Your task to perform on an android device: Open display settings Image 0: 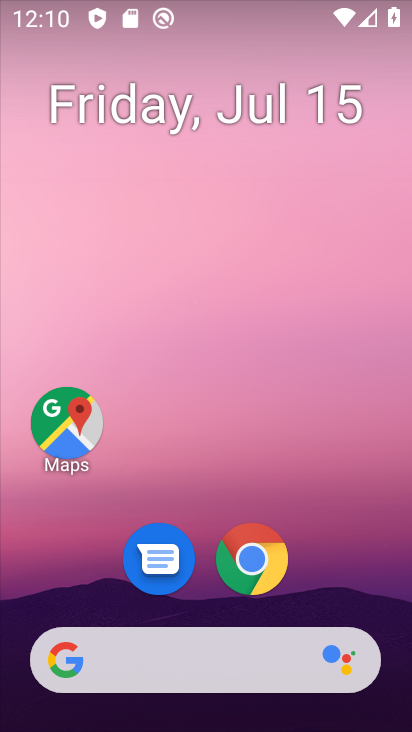
Step 0: drag from (379, 571) to (403, 197)
Your task to perform on an android device: Open display settings Image 1: 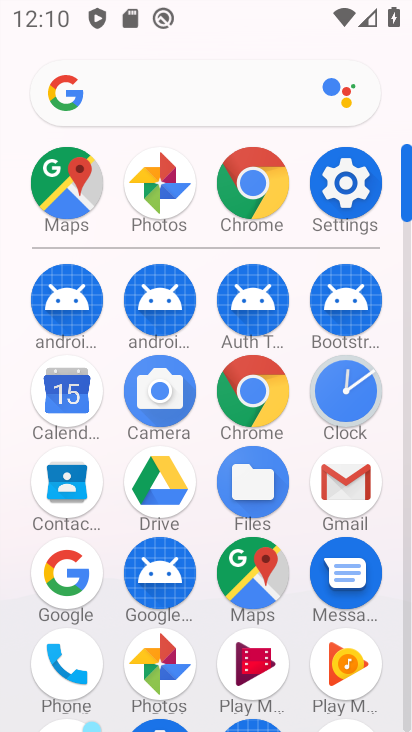
Step 1: click (358, 198)
Your task to perform on an android device: Open display settings Image 2: 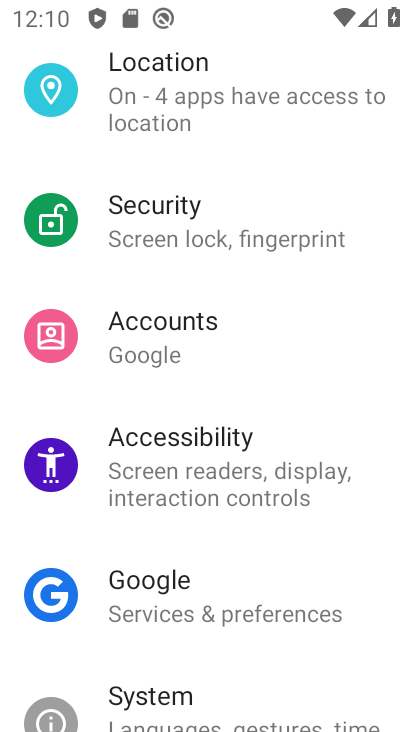
Step 2: drag from (340, 322) to (341, 413)
Your task to perform on an android device: Open display settings Image 3: 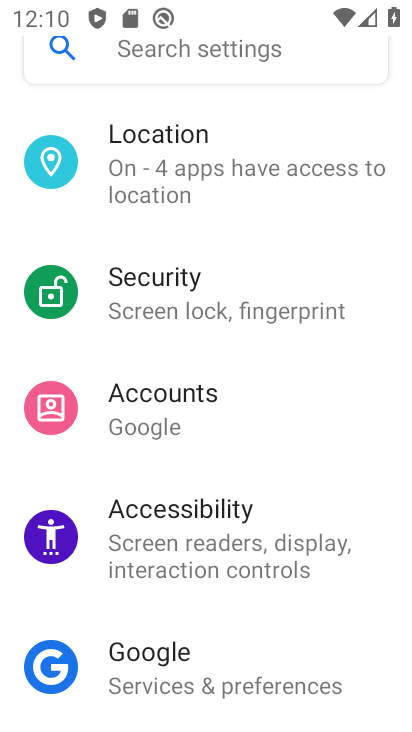
Step 3: drag from (369, 257) to (361, 376)
Your task to perform on an android device: Open display settings Image 4: 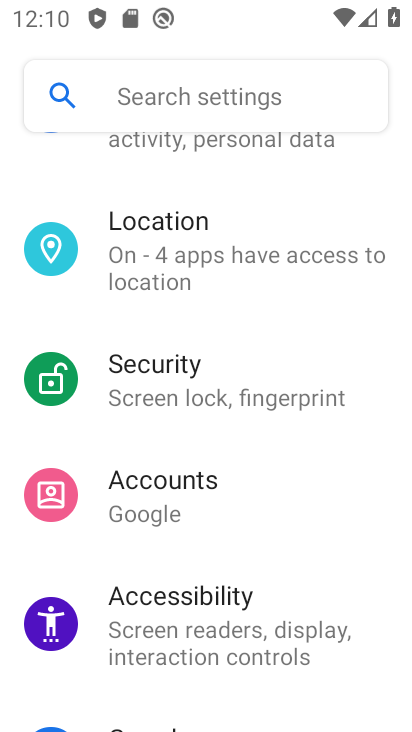
Step 4: drag from (368, 217) to (355, 366)
Your task to perform on an android device: Open display settings Image 5: 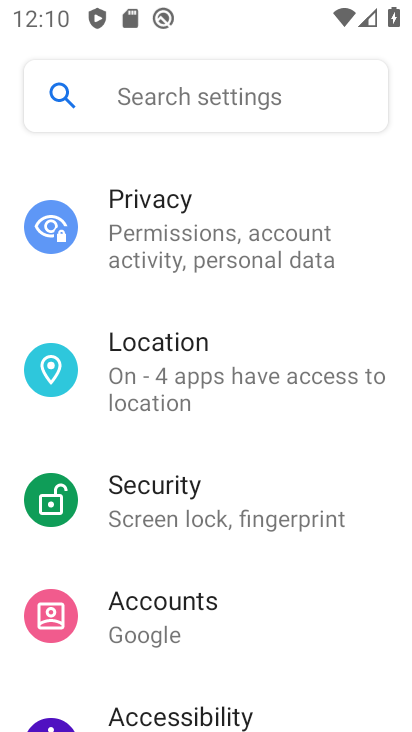
Step 5: drag from (367, 276) to (365, 373)
Your task to perform on an android device: Open display settings Image 6: 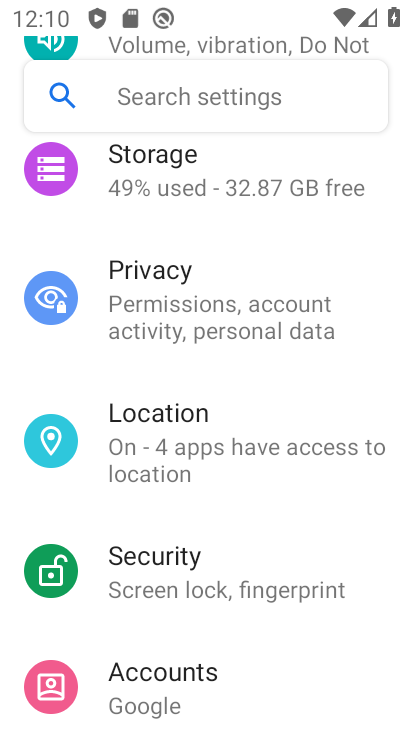
Step 6: drag from (364, 294) to (354, 397)
Your task to perform on an android device: Open display settings Image 7: 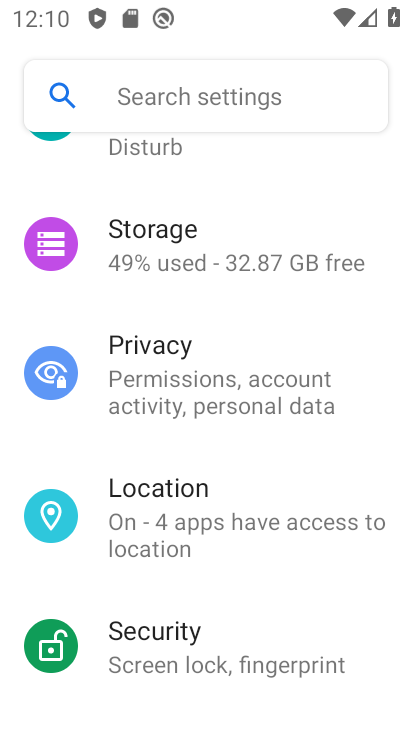
Step 7: drag from (382, 247) to (377, 404)
Your task to perform on an android device: Open display settings Image 8: 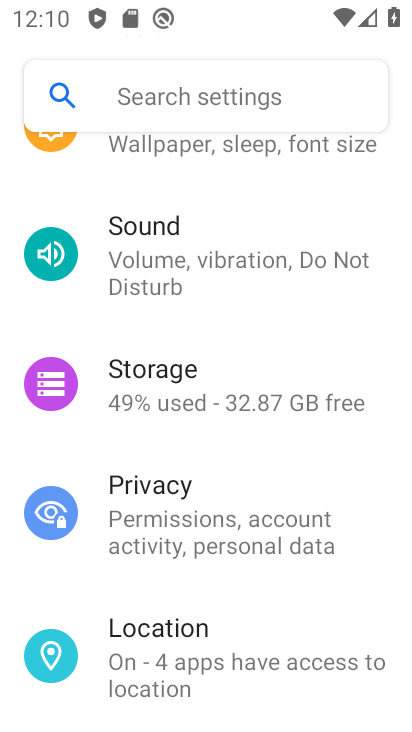
Step 8: drag from (374, 285) to (374, 392)
Your task to perform on an android device: Open display settings Image 9: 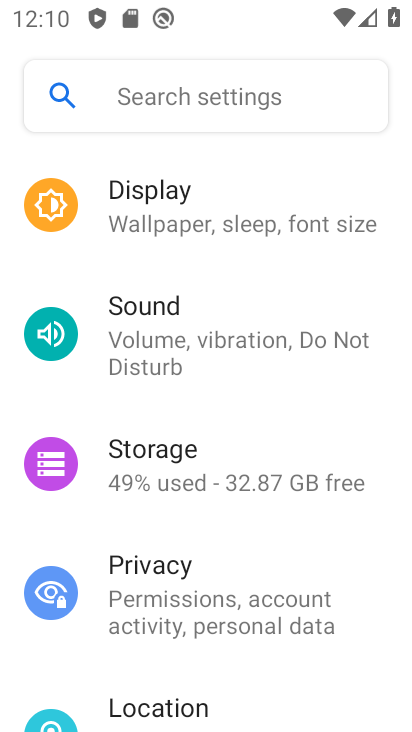
Step 9: drag from (378, 312) to (366, 412)
Your task to perform on an android device: Open display settings Image 10: 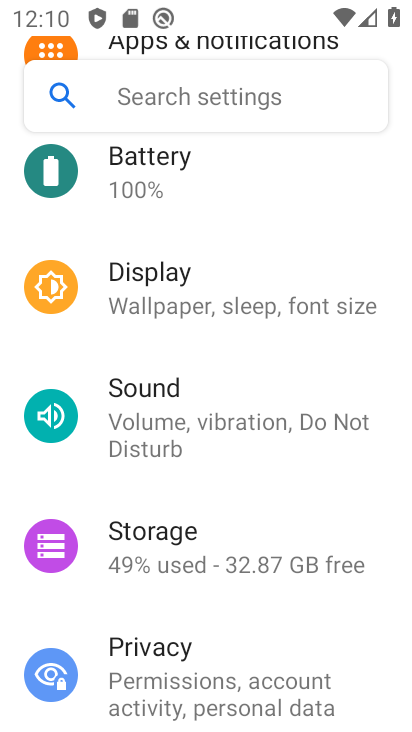
Step 10: drag from (377, 264) to (368, 397)
Your task to perform on an android device: Open display settings Image 11: 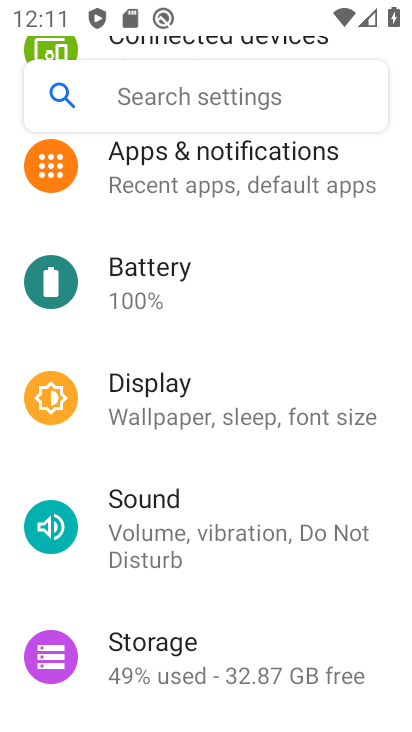
Step 11: drag from (366, 298) to (364, 494)
Your task to perform on an android device: Open display settings Image 12: 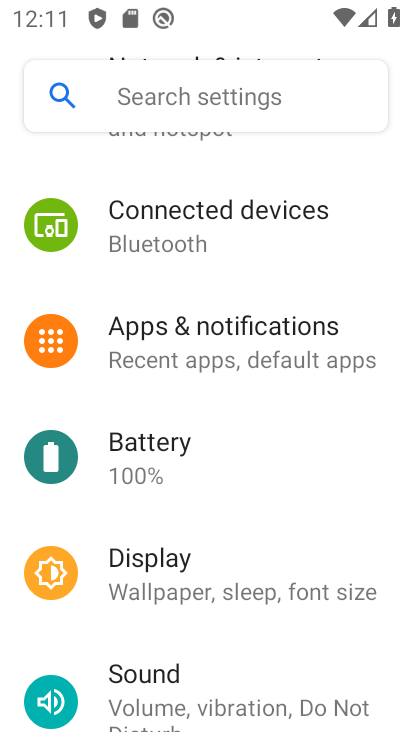
Step 12: drag from (362, 507) to (367, 401)
Your task to perform on an android device: Open display settings Image 13: 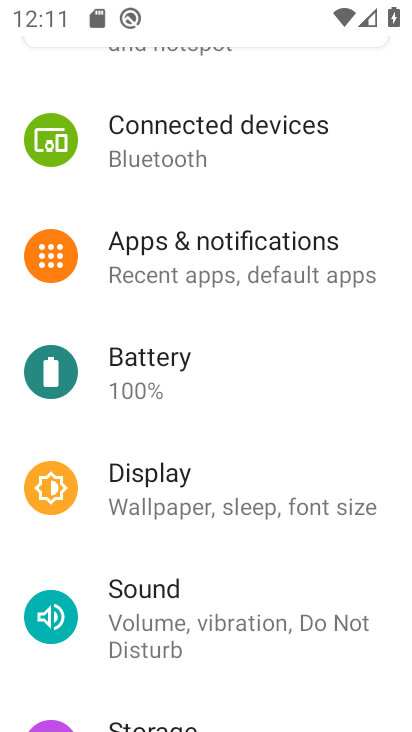
Step 13: drag from (363, 535) to (364, 385)
Your task to perform on an android device: Open display settings Image 14: 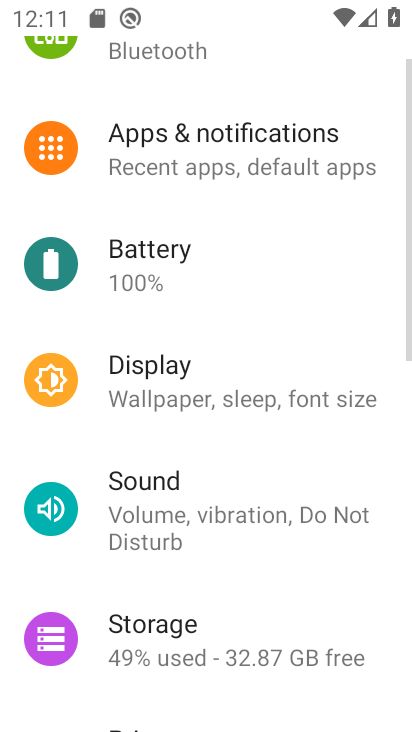
Step 14: click (357, 392)
Your task to perform on an android device: Open display settings Image 15: 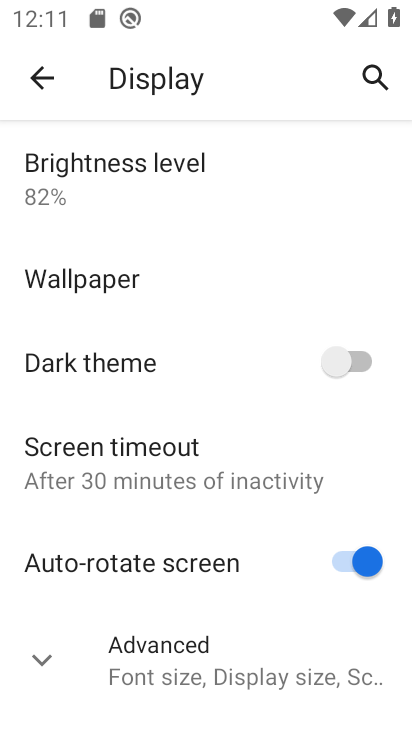
Step 15: click (245, 647)
Your task to perform on an android device: Open display settings Image 16: 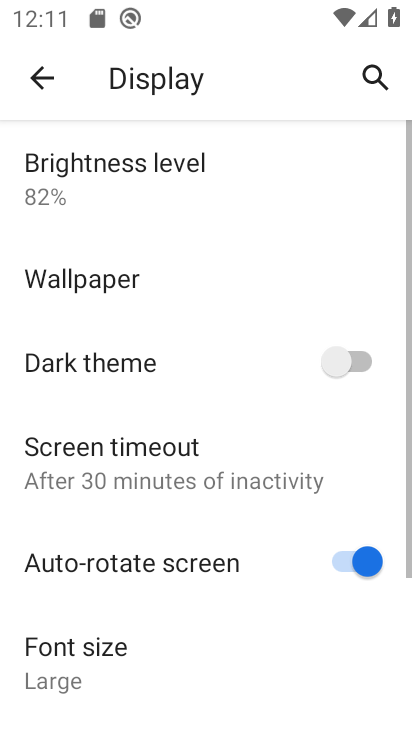
Step 16: task complete